Your task to perform on an android device: Look up the best rated 3d printer on Ali Express Image 0: 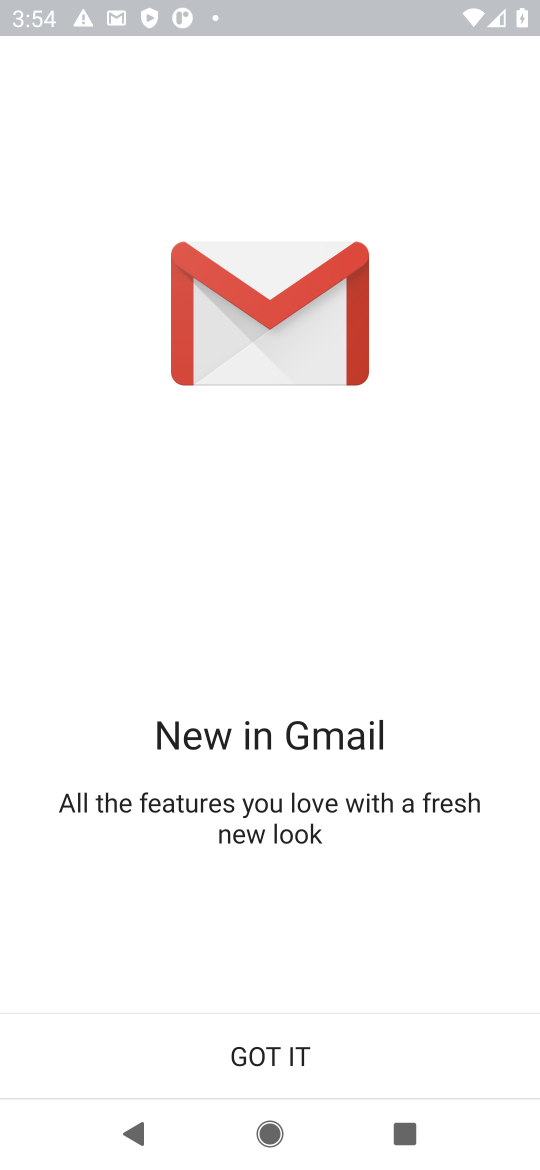
Step 0: press home button
Your task to perform on an android device: Look up the best rated 3d printer on Ali Express Image 1: 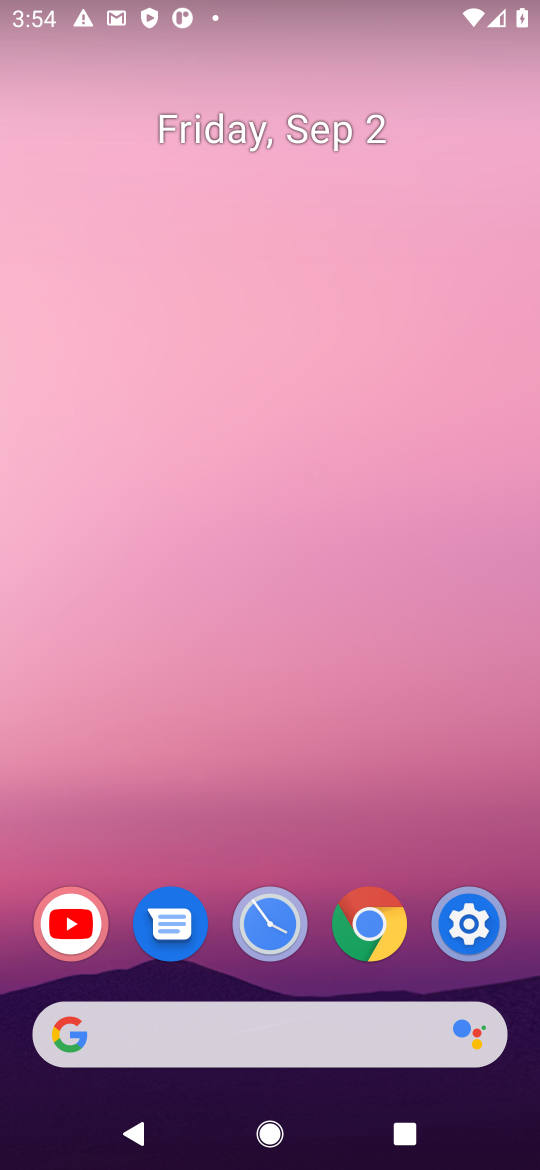
Step 1: click (378, 1026)
Your task to perform on an android device: Look up the best rated 3d printer on Ali Express Image 2: 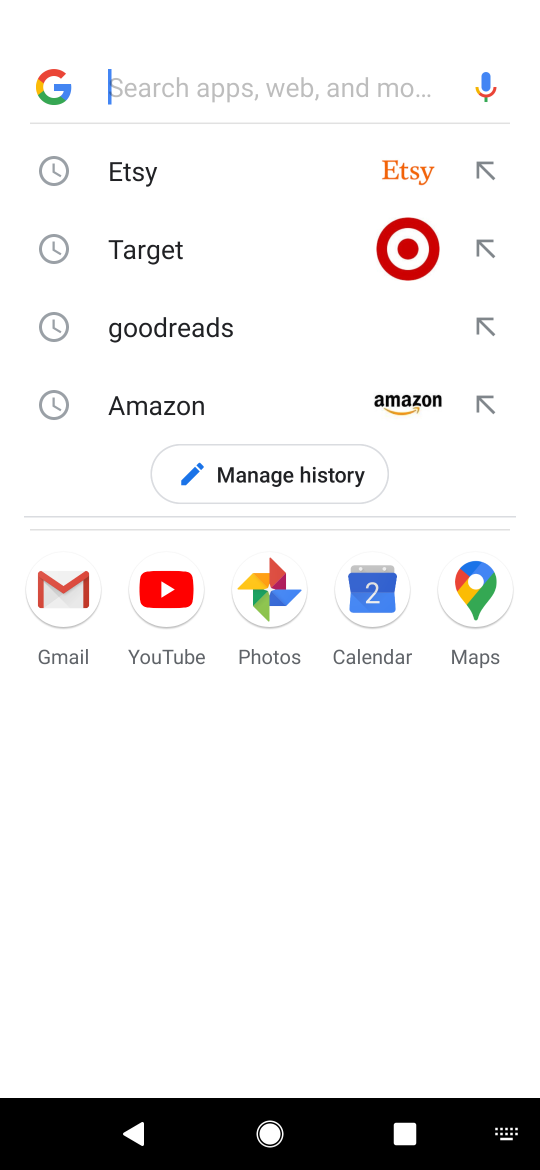
Step 2: press enter
Your task to perform on an android device: Look up the best rated 3d printer on Ali Express Image 3: 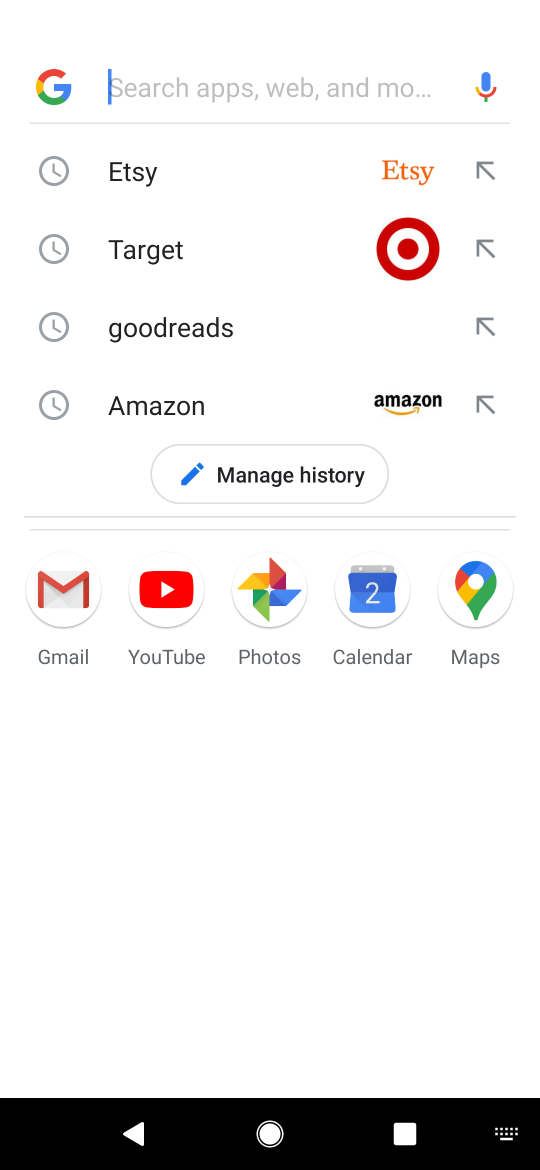
Step 3: type "aliexpress"
Your task to perform on an android device: Look up the best rated 3d printer on Ali Express Image 4: 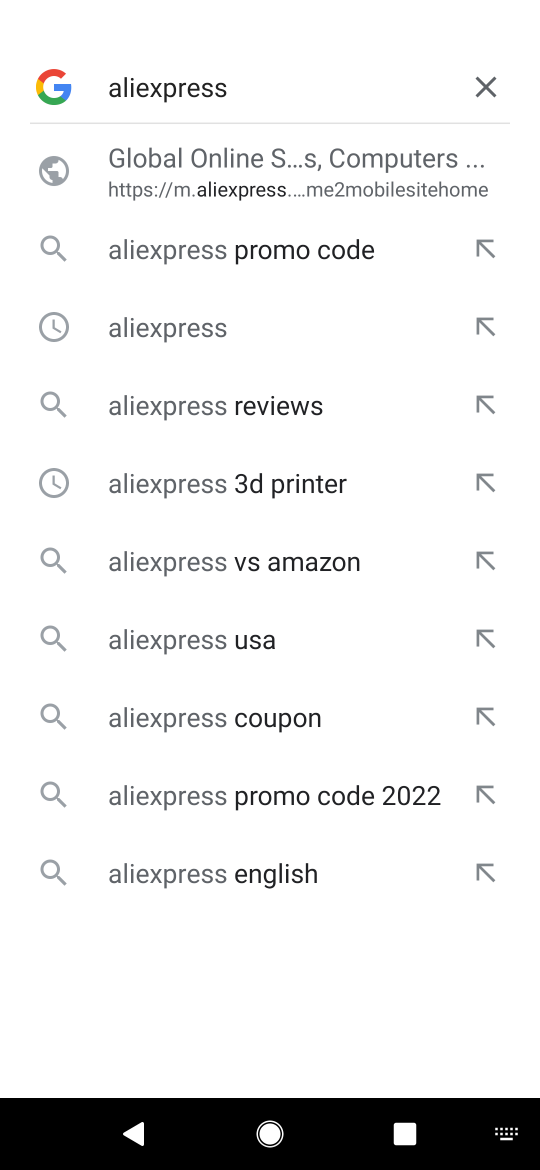
Step 4: click (342, 178)
Your task to perform on an android device: Look up the best rated 3d printer on Ali Express Image 5: 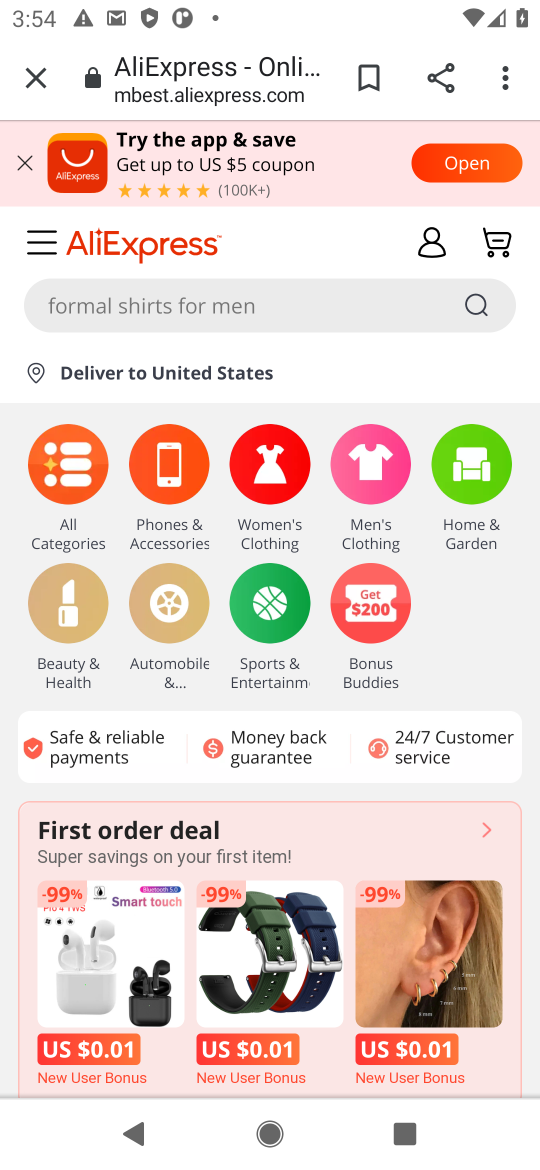
Step 5: click (303, 298)
Your task to perform on an android device: Look up the best rated 3d printer on Ali Express Image 6: 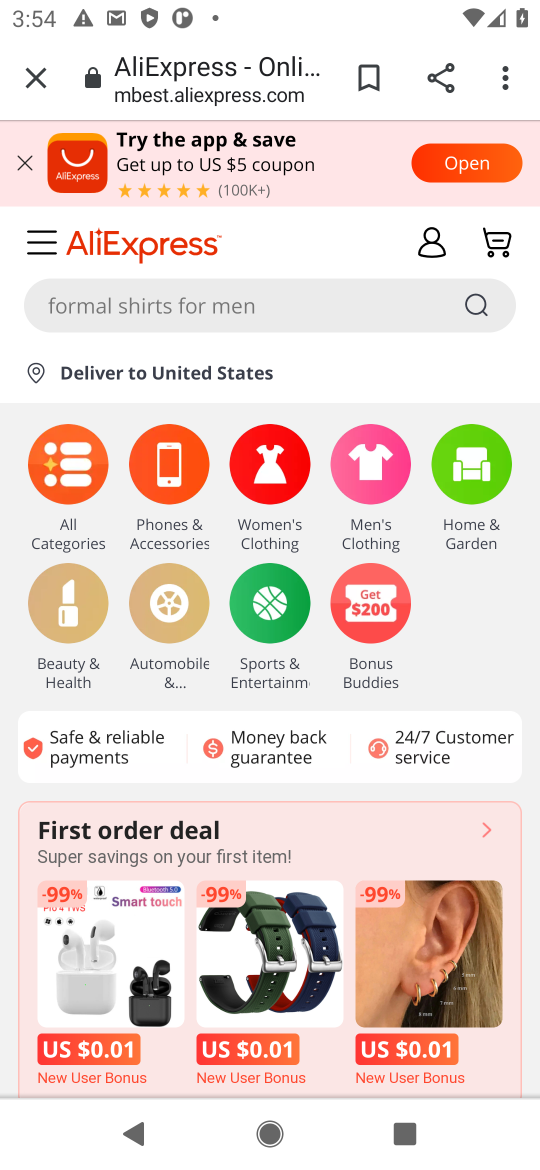
Step 6: click (91, 299)
Your task to perform on an android device: Look up the best rated 3d printer on Ali Express Image 7: 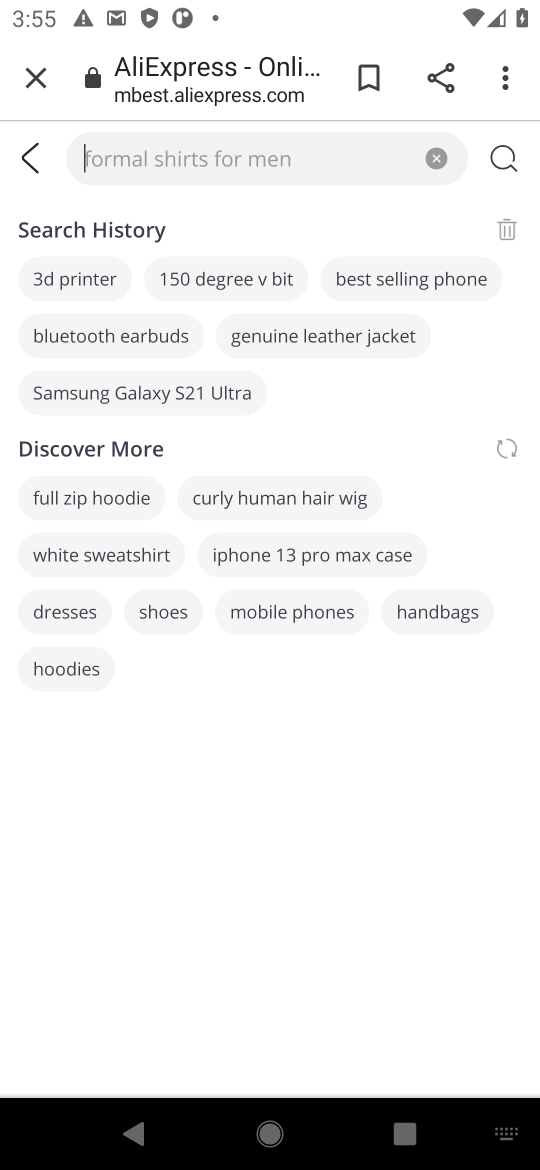
Step 7: click (76, 277)
Your task to perform on an android device: Look up the best rated 3d printer on Ali Express Image 8: 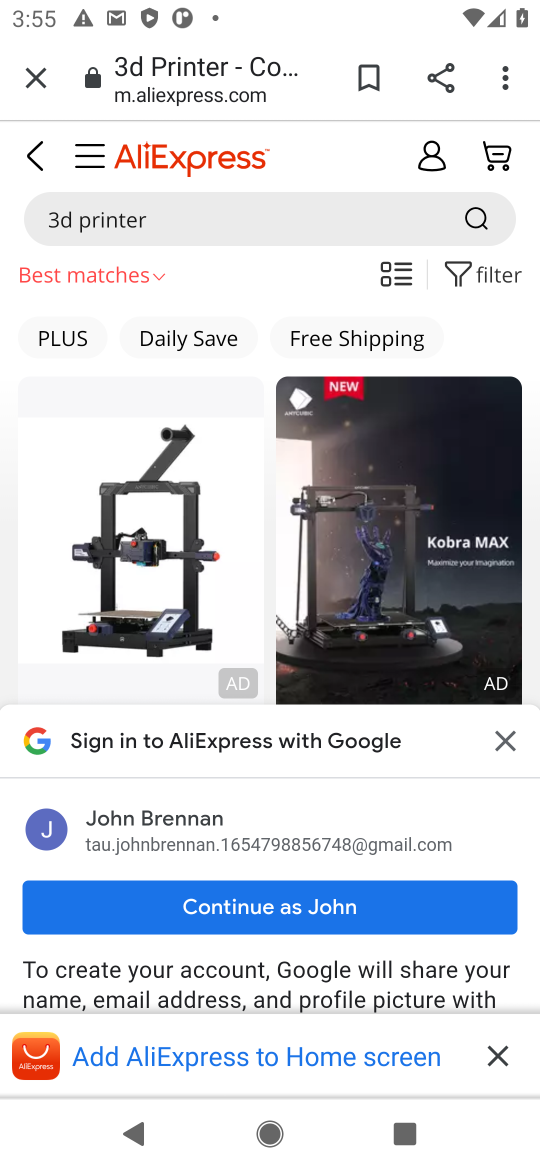
Step 8: task complete